Your task to perform on an android device: search for starred emails in the gmail app Image 0: 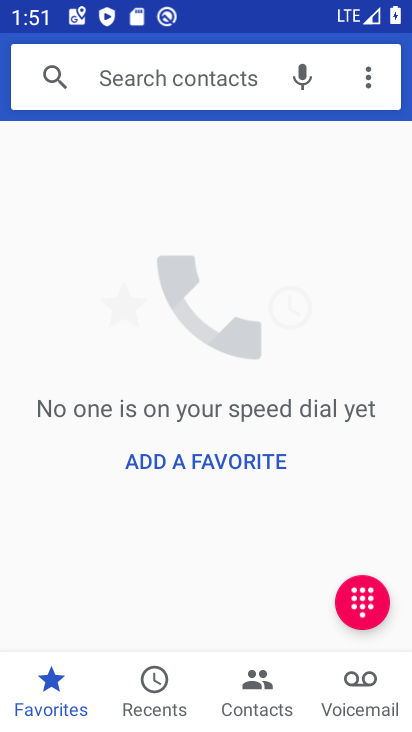
Step 0: press home button
Your task to perform on an android device: search for starred emails in the gmail app Image 1: 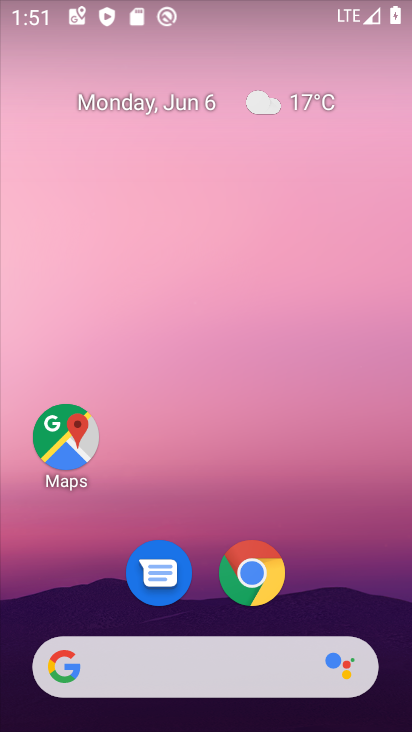
Step 1: drag from (368, 599) to (374, 126)
Your task to perform on an android device: search for starred emails in the gmail app Image 2: 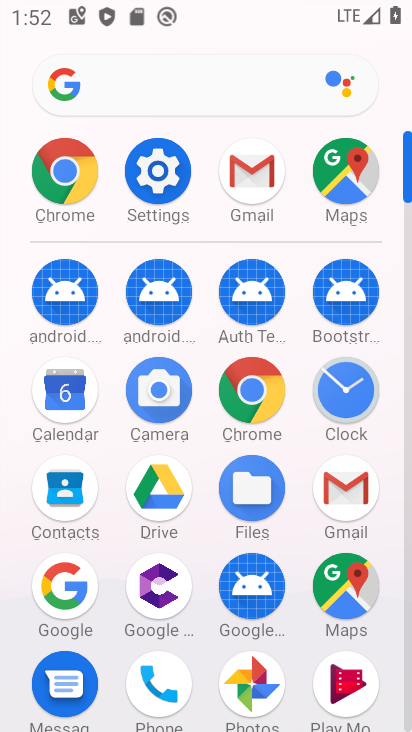
Step 2: click (353, 497)
Your task to perform on an android device: search for starred emails in the gmail app Image 3: 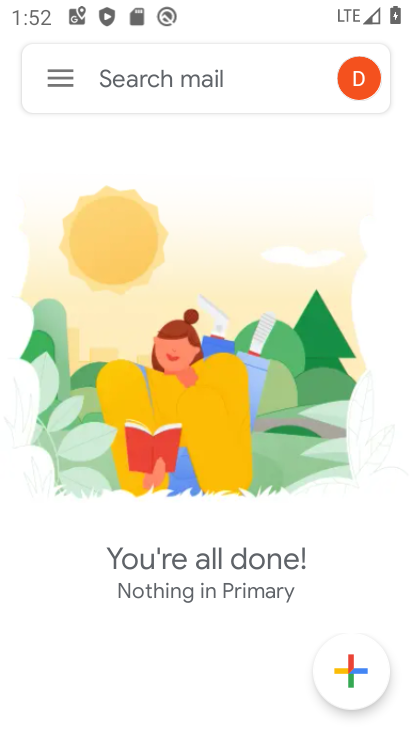
Step 3: click (55, 80)
Your task to perform on an android device: search for starred emails in the gmail app Image 4: 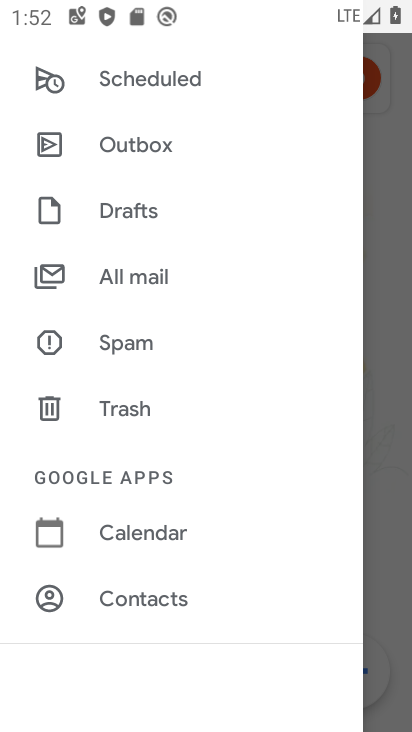
Step 4: drag from (246, 379) to (255, 475)
Your task to perform on an android device: search for starred emails in the gmail app Image 5: 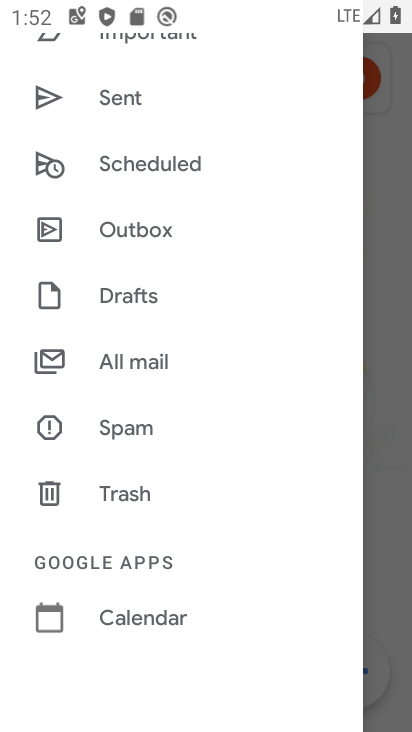
Step 5: drag from (261, 319) to (269, 374)
Your task to perform on an android device: search for starred emails in the gmail app Image 6: 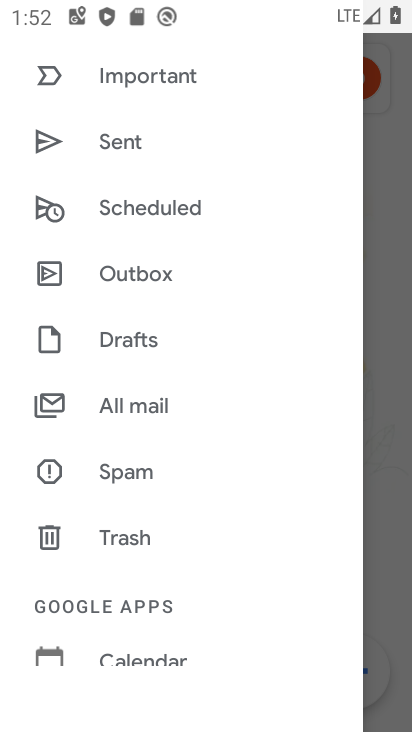
Step 6: drag from (263, 257) to (263, 373)
Your task to perform on an android device: search for starred emails in the gmail app Image 7: 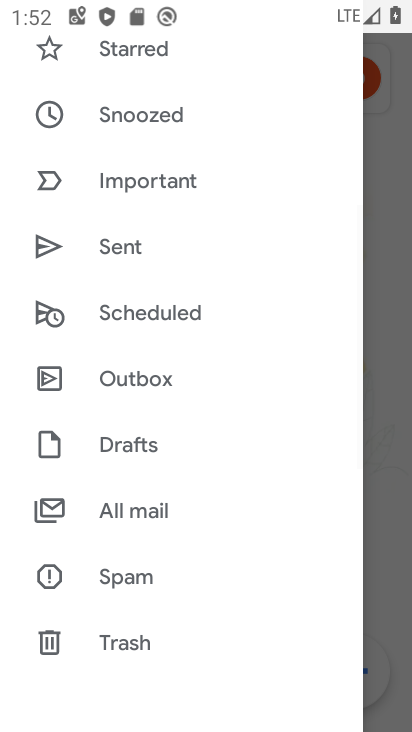
Step 7: drag from (260, 214) to (272, 311)
Your task to perform on an android device: search for starred emails in the gmail app Image 8: 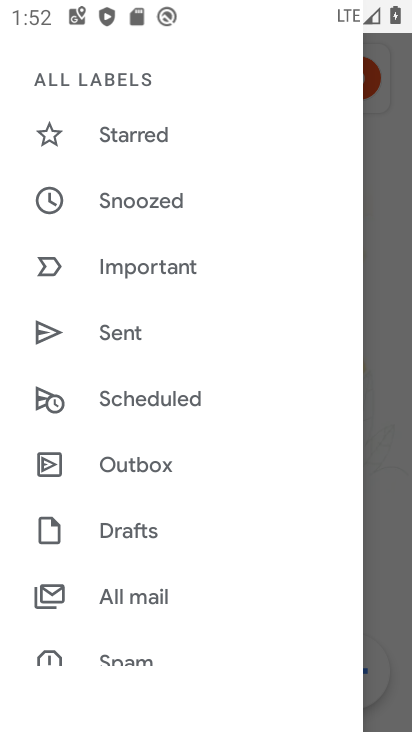
Step 8: drag from (271, 244) to (270, 351)
Your task to perform on an android device: search for starred emails in the gmail app Image 9: 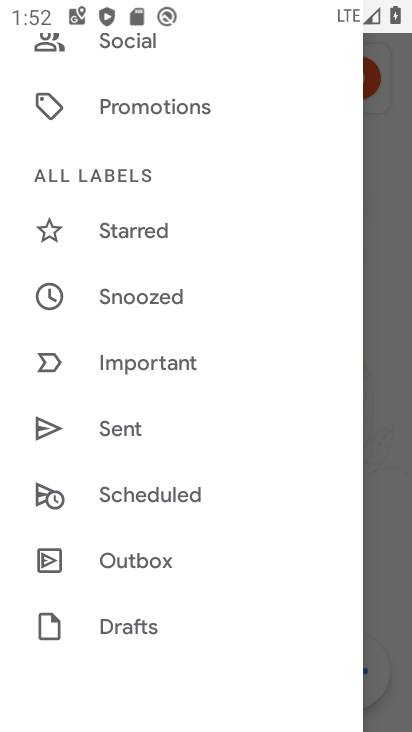
Step 9: drag from (260, 227) to (260, 340)
Your task to perform on an android device: search for starred emails in the gmail app Image 10: 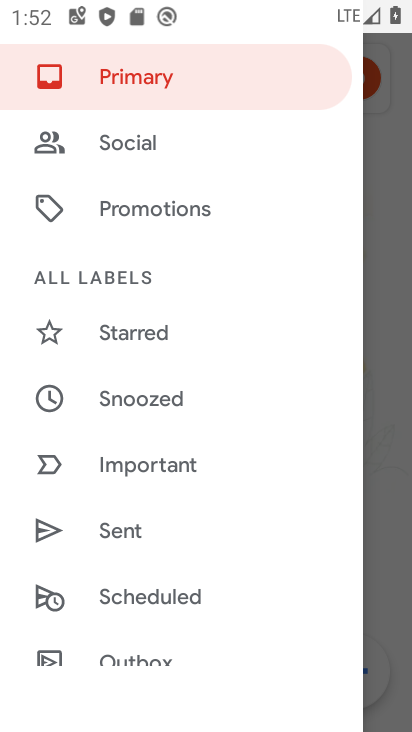
Step 10: drag from (258, 223) to (258, 345)
Your task to perform on an android device: search for starred emails in the gmail app Image 11: 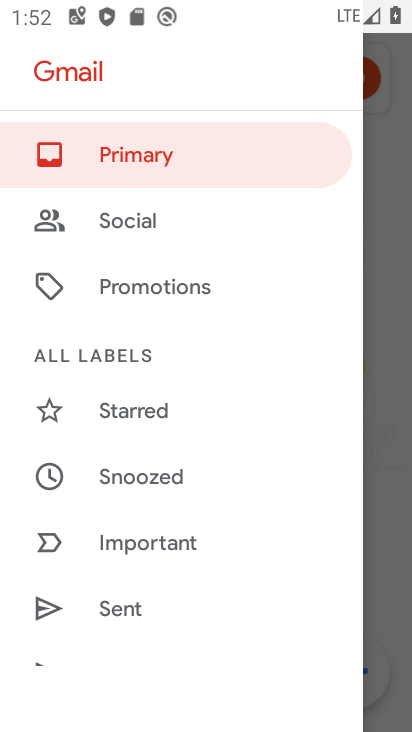
Step 11: drag from (249, 233) to (249, 357)
Your task to perform on an android device: search for starred emails in the gmail app Image 12: 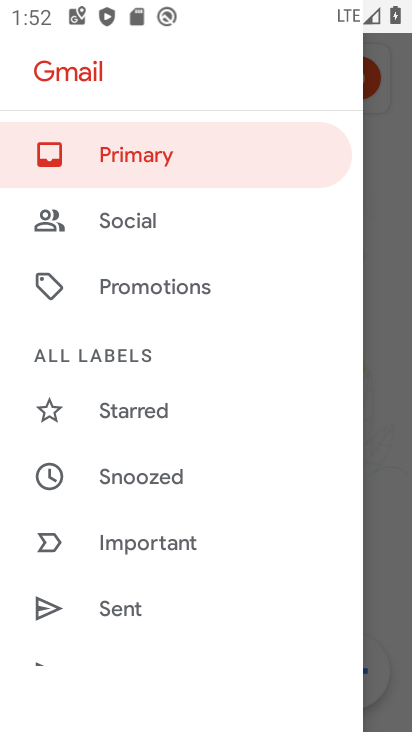
Step 12: click (163, 421)
Your task to perform on an android device: search for starred emails in the gmail app Image 13: 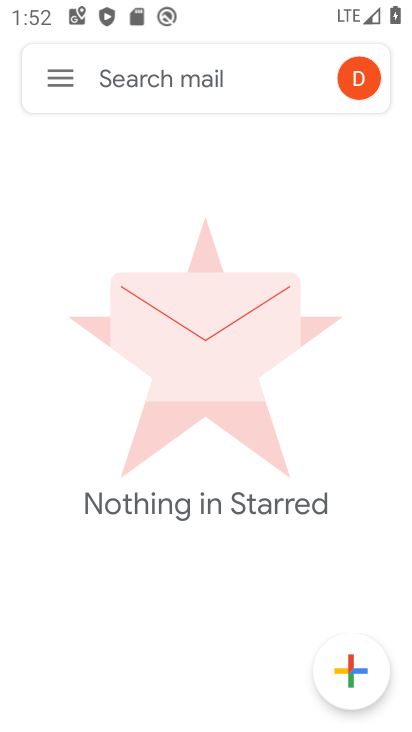
Step 13: task complete